Your task to perform on an android device: Search for Italian restaurants on Maps Image 0: 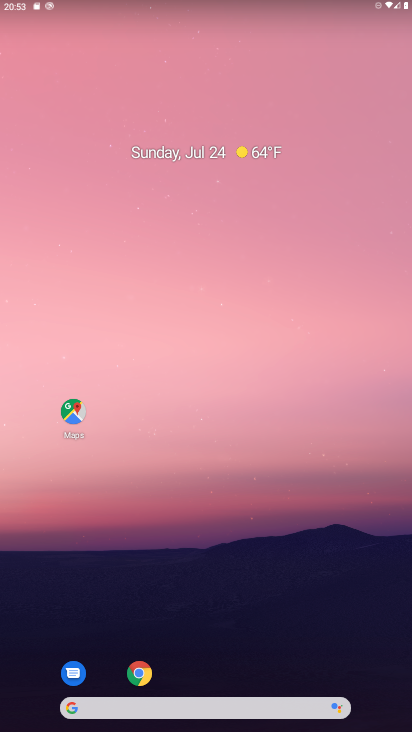
Step 0: click (67, 415)
Your task to perform on an android device: Search for Italian restaurants on Maps Image 1: 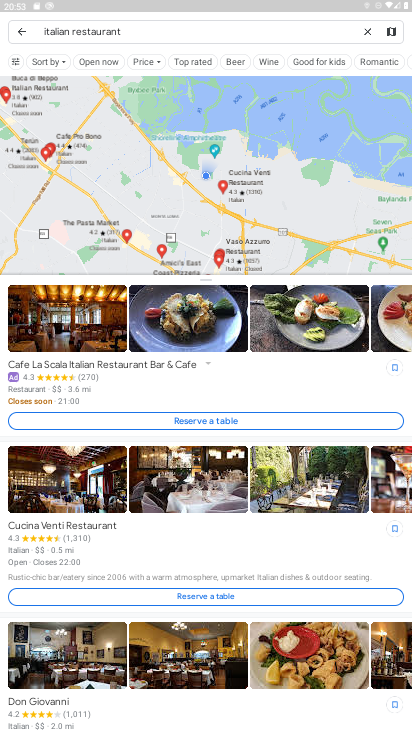
Step 1: task complete